Your task to perform on an android device: Open calendar and show me the first week of next month Image 0: 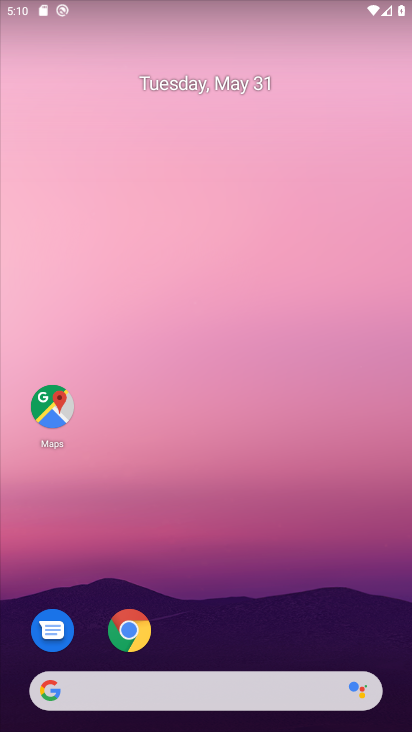
Step 0: drag from (263, 483) to (263, 33)
Your task to perform on an android device: Open calendar and show me the first week of next month Image 1: 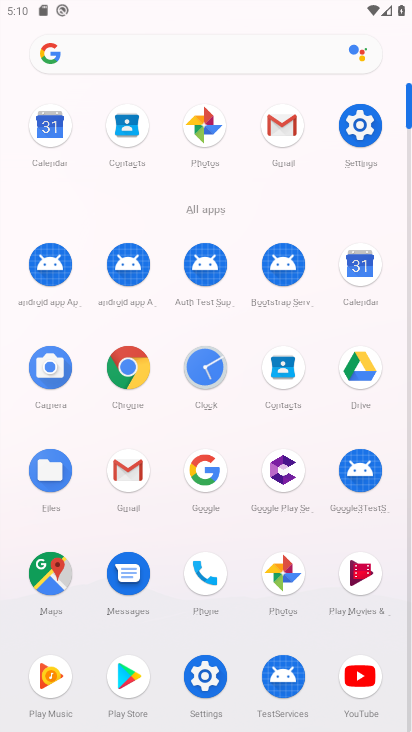
Step 1: click (45, 124)
Your task to perform on an android device: Open calendar and show me the first week of next month Image 2: 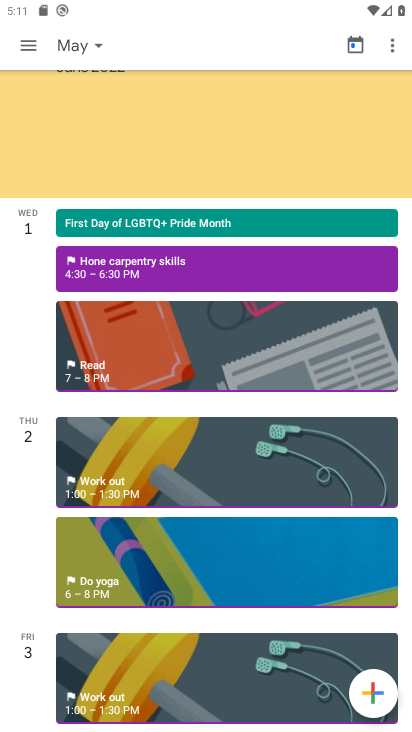
Step 2: click (90, 40)
Your task to perform on an android device: Open calendar and show me the first week of next month Image 3: 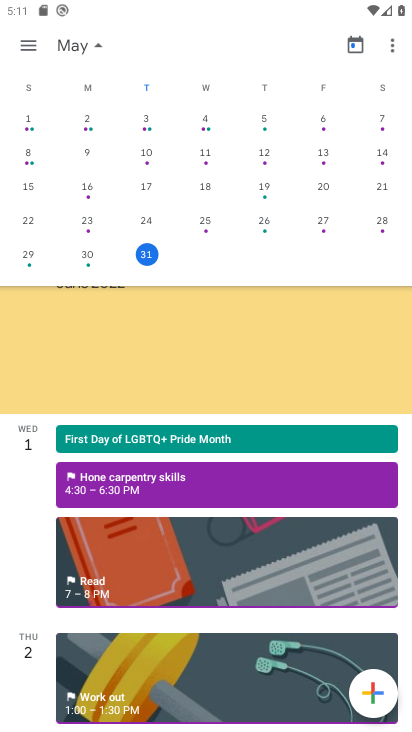
Step 3: task complete